Your task to perform on an android device: search for starred emails in the gmail app Image 0: 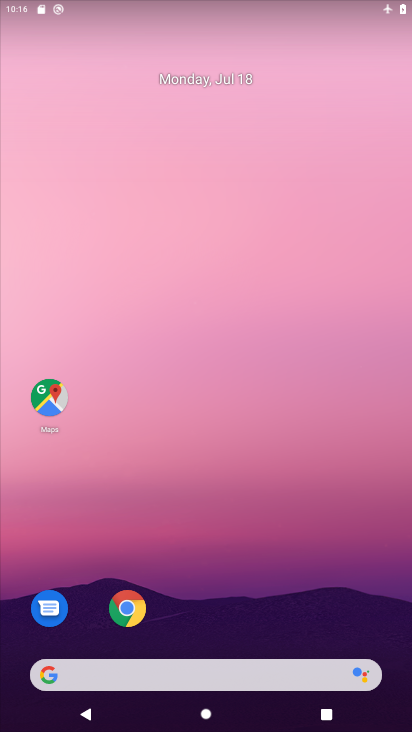
Step 0: drag from (219, 648) to (285, 14)
Your task to perform on an android device: search for starred emails in the gmail app Image 1: 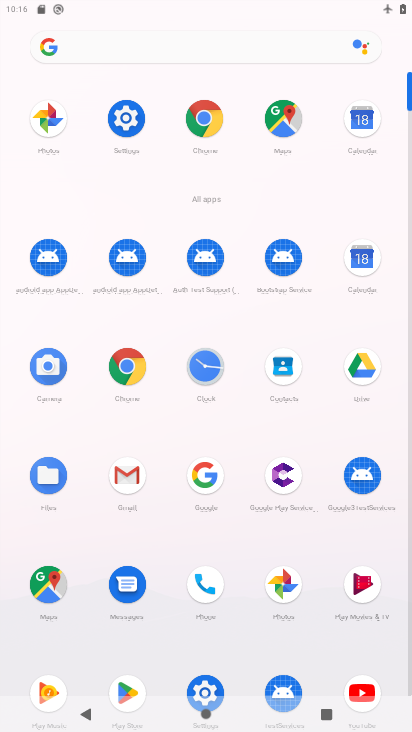
Step 1: click (131, 464)
Your task to perform on an android device: search for starred emails in the gmail app Image 2: 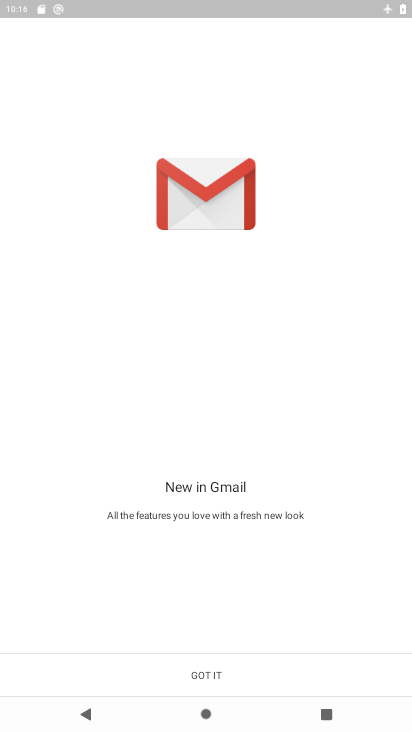
Step 2: click (226, 665)
Your task to perform on an android device: search for starred emails in the gmail app Image 3: 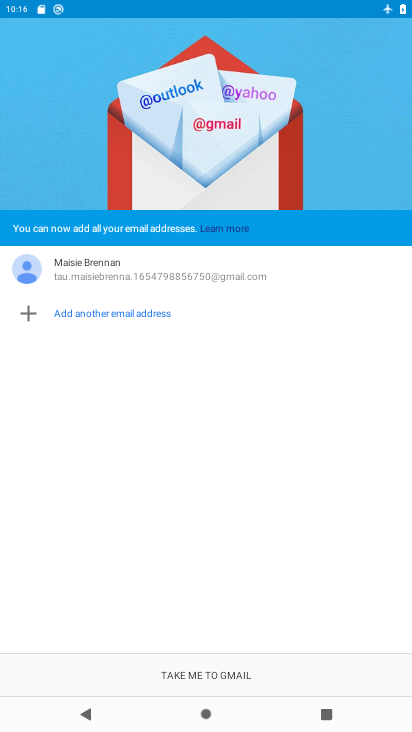
Step 3: click (226, 665)
Your task to perform on an android device: search for starred emails in the gmail app Image 4: 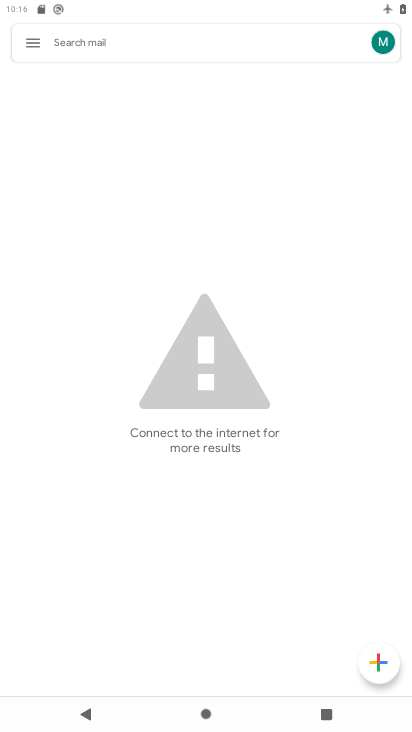
Step 4: drag from (164, 181) to (164, 386)
Your task to perform on an android device: search for starred emails in the gmail app Image 5: 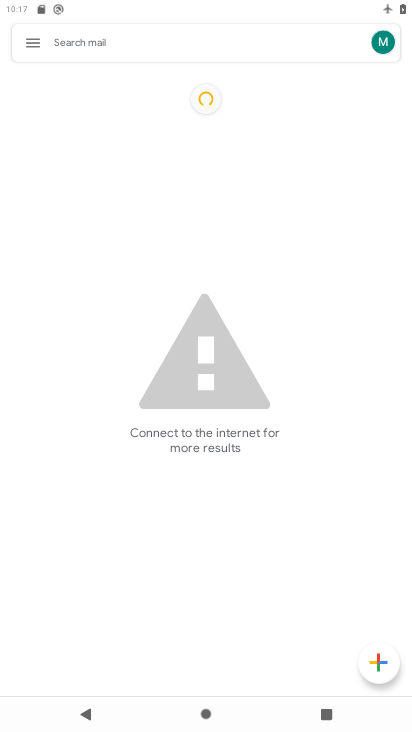
Step 5: click (33, 30)
Your task to perform on an android device: search for starred emails in the gmail app Image 6: 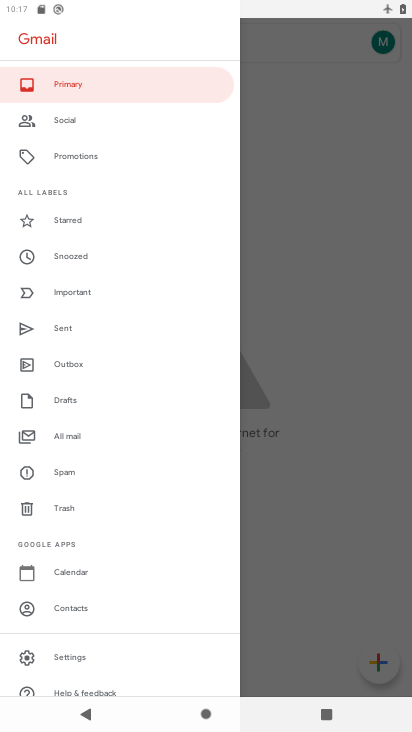
Step 6: click (71, 214)
Your task to perform on an android device: search for starred emails in the gmail app Image 7: 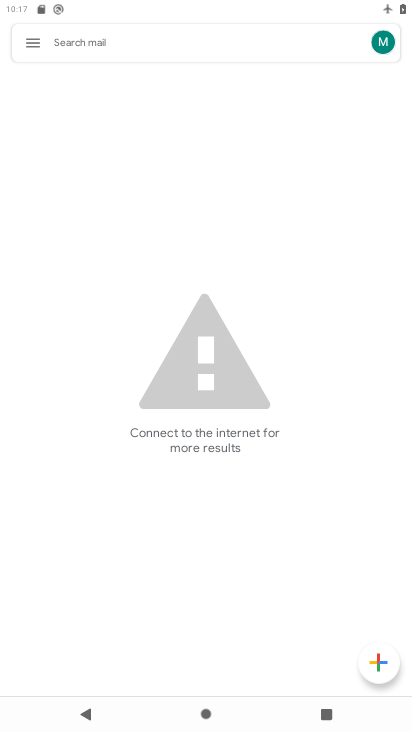
Step 7: task complete